Your task to perform on an android device: install app "Gboard" Image 0: 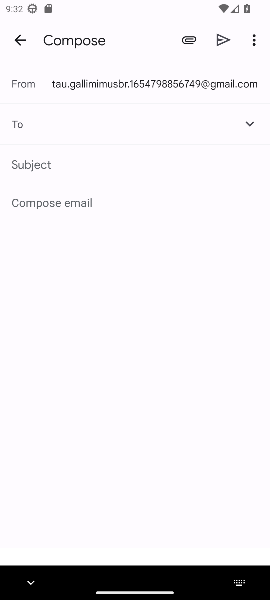
Step 0: press home button
Your task to perform on an android device: install app "Gboard" Image 1: 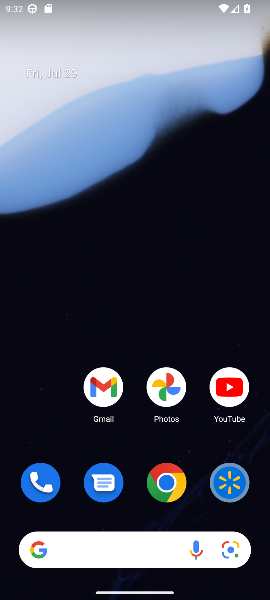
Step 1: drag from (136, 562) to (109, 75)
Your task to perform on an android device: install app "Gboard" Image 2: 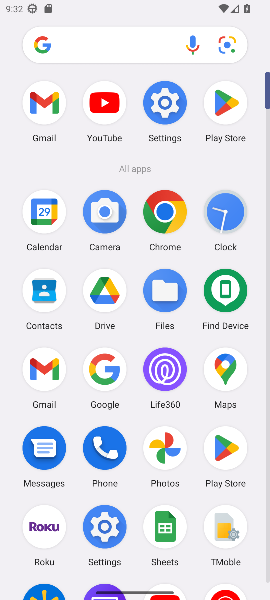
Step 2: click (218, 107)
Your task to perform on an android device: install app "Gboard" Image 3: 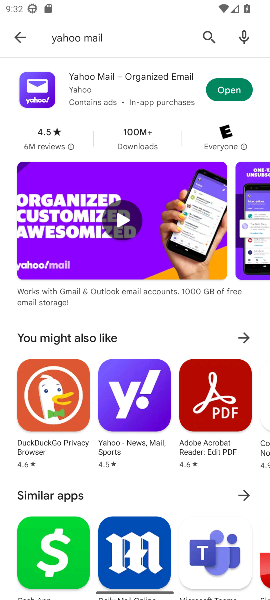
Step 3: click (205, 35)
Your task to perform on an android device: install app "Gboard" Image 4: 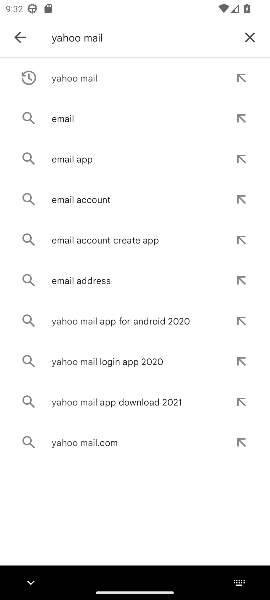
Step 4: click (249, 32)
Your task to perform on an android device: install app "Gboard" Image 5: 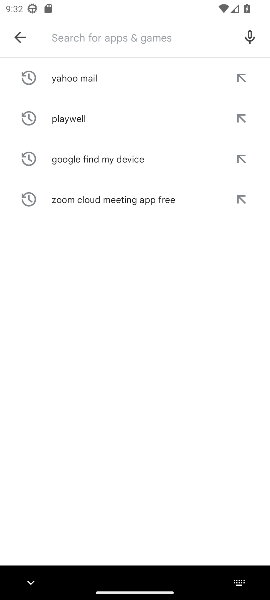
Step 5: type "Gboard"
Your task to perform on an android device: install app "Gboard" Image 6: 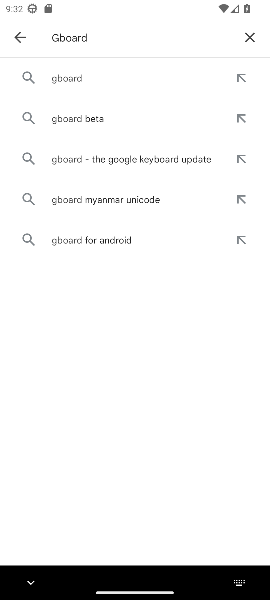
Step 6: click (58, 77)
Your task to perform on an android device: install app "Gboard" Image 7: 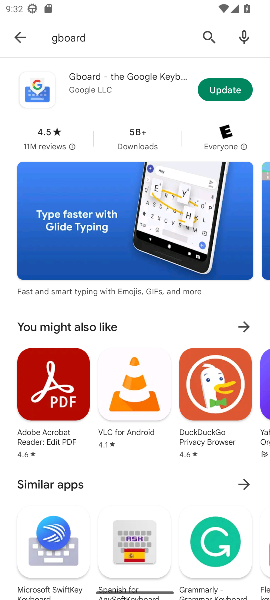
Step 7: click (120, 79)
Your task to perform on an android device: install app "Gboard" Image 8: 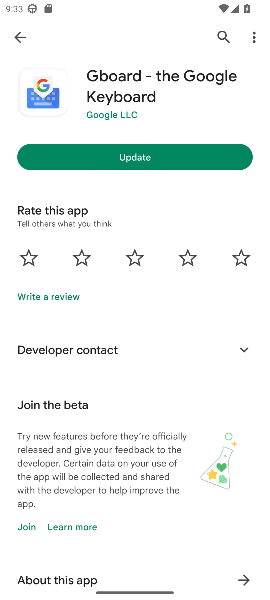
Step 8: task complete